Your task to perform on an android device: Search for seafood restaurants on Google Maps Image 0: 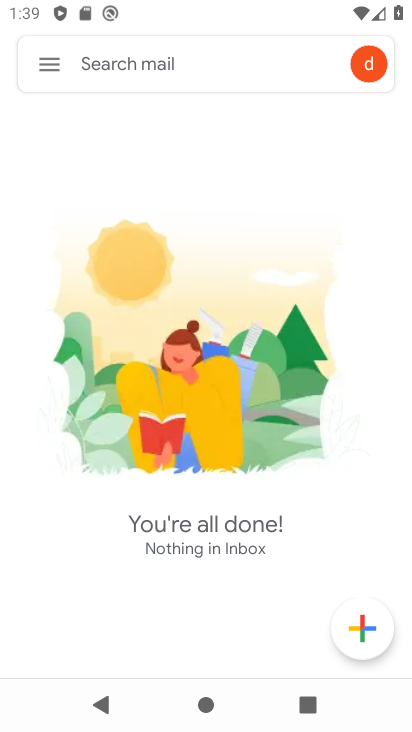
Step 0: press back button
Your task to perform on an android device: Search for seafood restaurants on Google Maps Image 1: 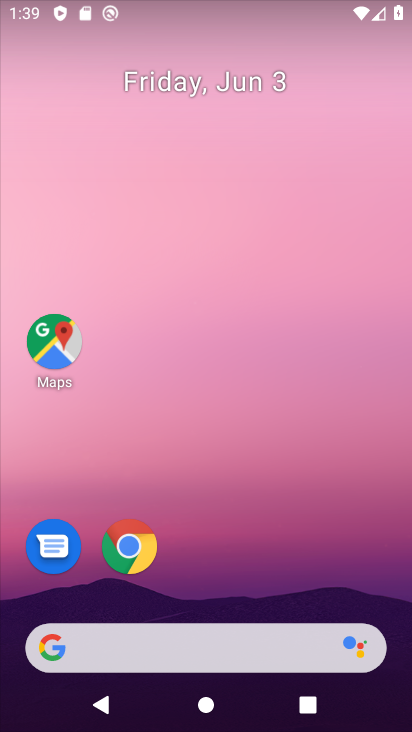
Step 1: click (53, 359)
Your task to perform on an android device: Search for seafood restaurants on Google Maps Image 2: 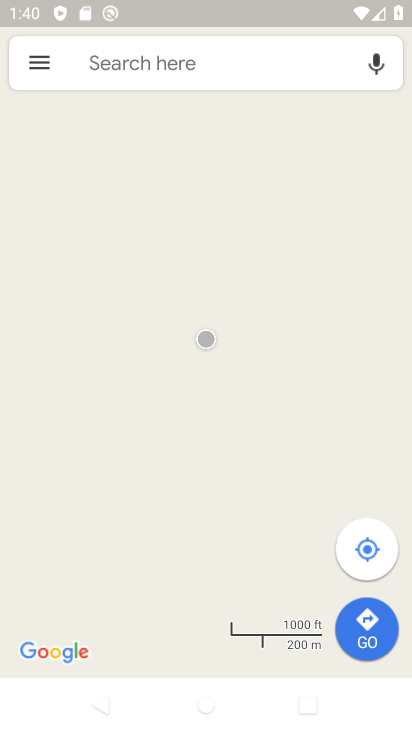
Step 2: click (151, 71)
Your task to perform on an android device: Search for seafood restaurants on Google Maps Image 3: 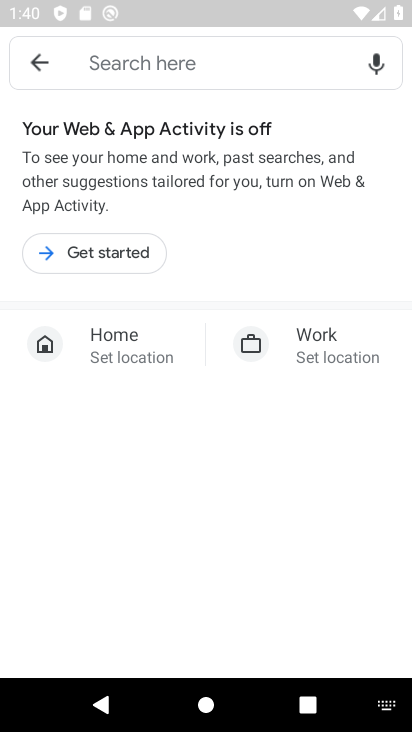
Step 3: click (128, 251)
Your task to perform on an android device: Search for seafood restaurants on Google Maps Image 4: 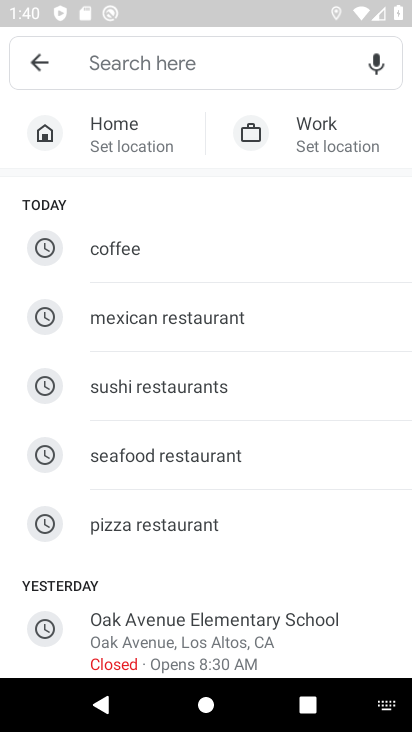
Step 4: click (168, 452)
Your task to perform on an android device: Search for seafood restaurants on Google Maps Image 5: 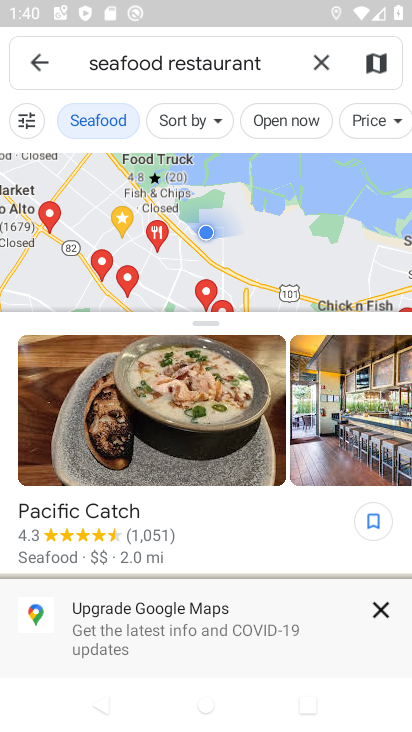
Step 5: task complete